Your task to perform on an android device: turn on showing notifications on the lock screen Image 0: 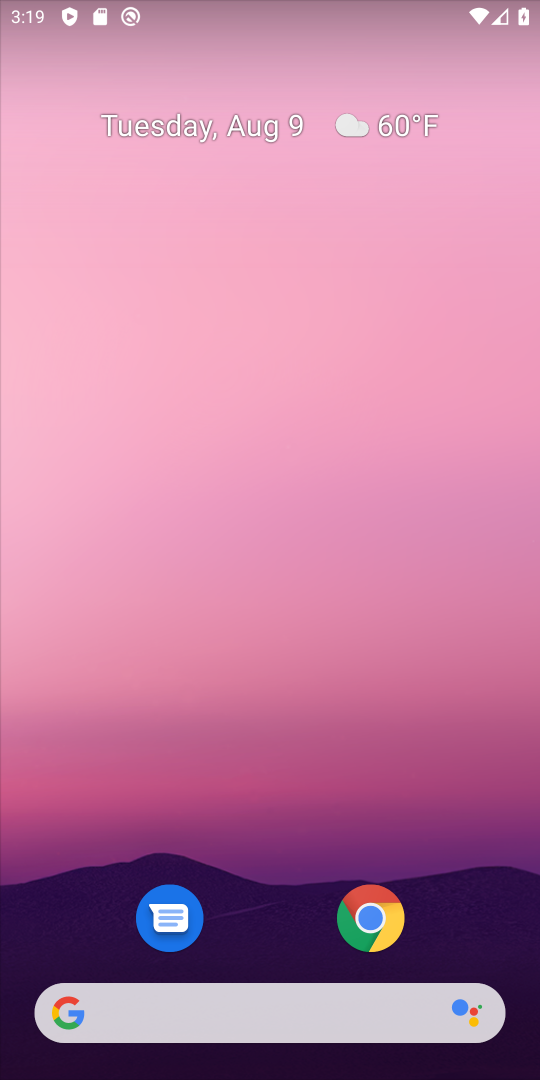
Step 0: drag from (281, 1009) to (242, 200)
Your task to perform on an android device: turn on showing notifications on the lock screen Image 1: 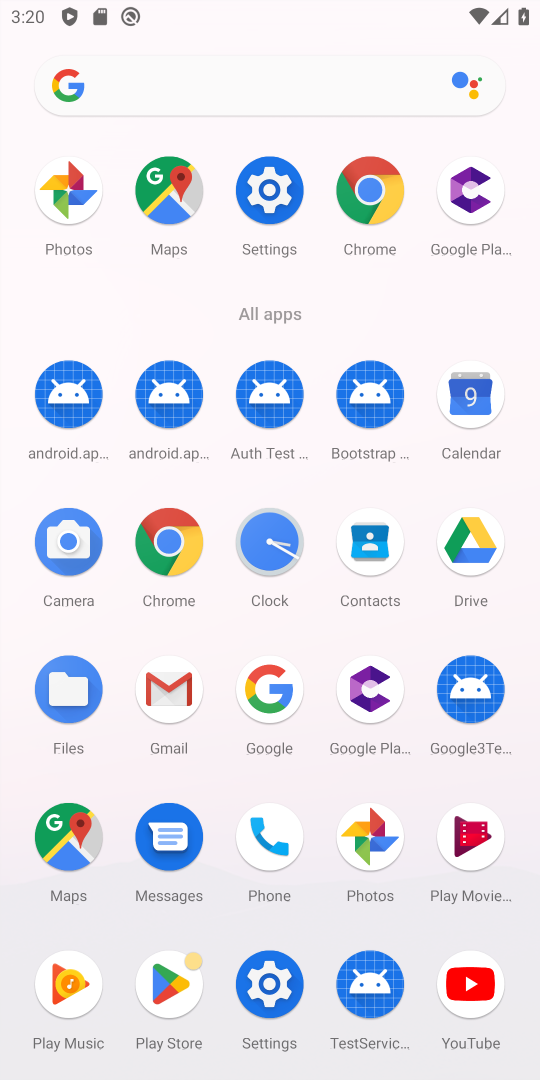
Step 1: click (297, 996)
Your task to perform on an android device: turn on showing notifications on the lock screen Image 2: 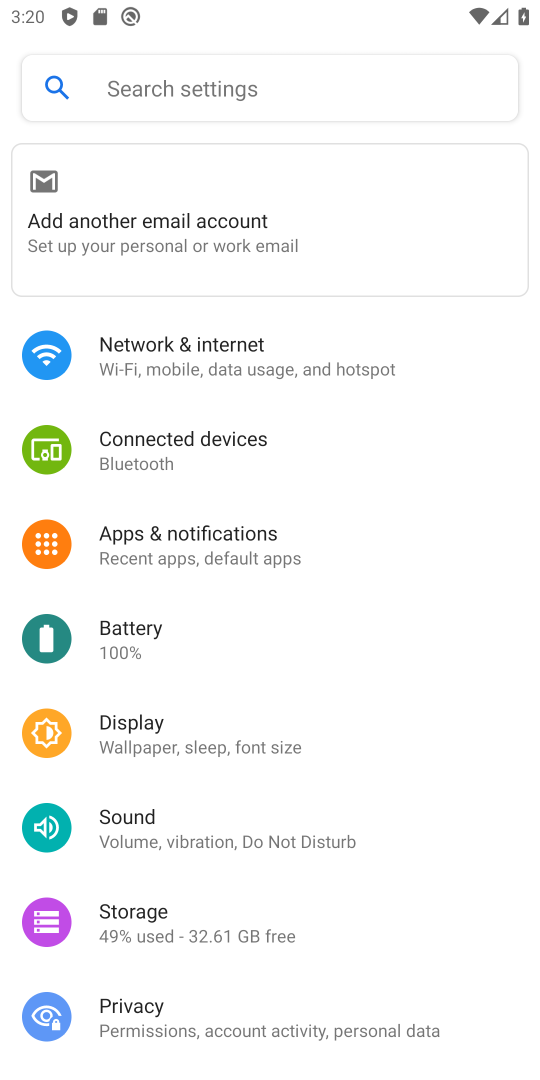
Step 2: click (217, 535)
Your task to perform on an android device: turn on showing notifications on the lock screen Image 3: 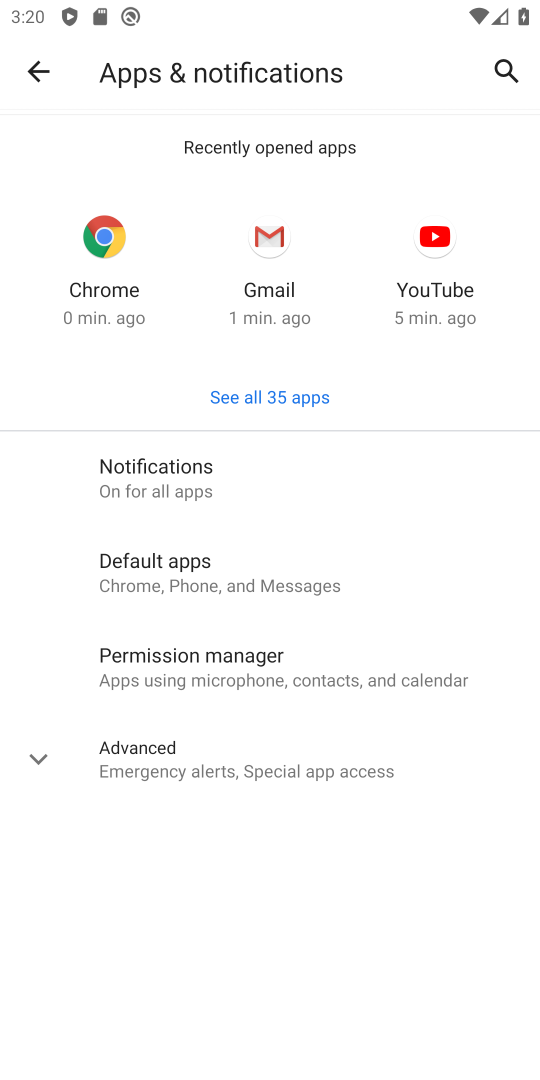
Step 3: click (252, 472)
Your task to perform on an android device: turn on showing notifications on the lock screen Image 4: 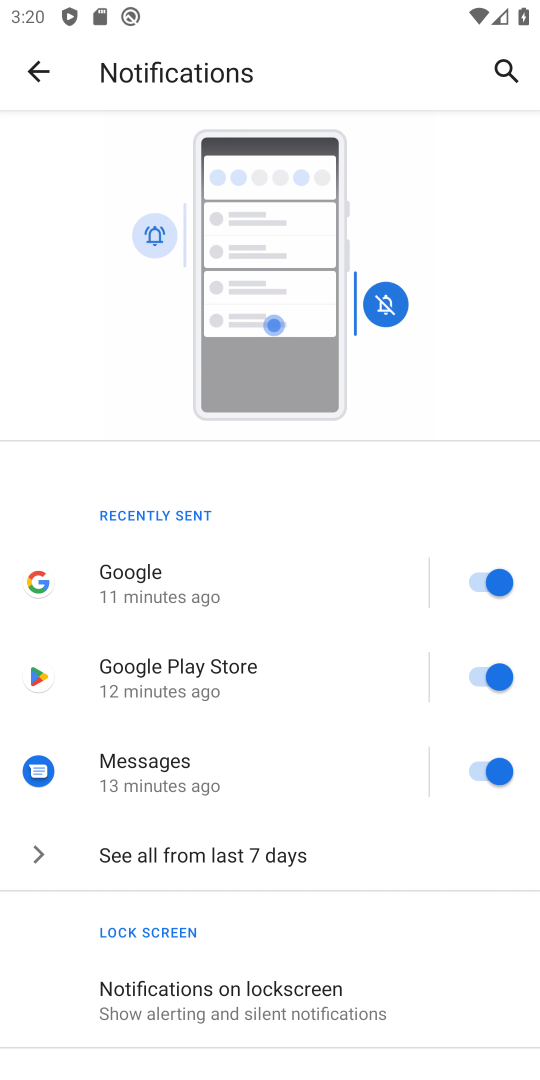
Step 4: click (327, 1020)
Your task to perform on an android device: turn on showing notifications on the lock screen Image 5: 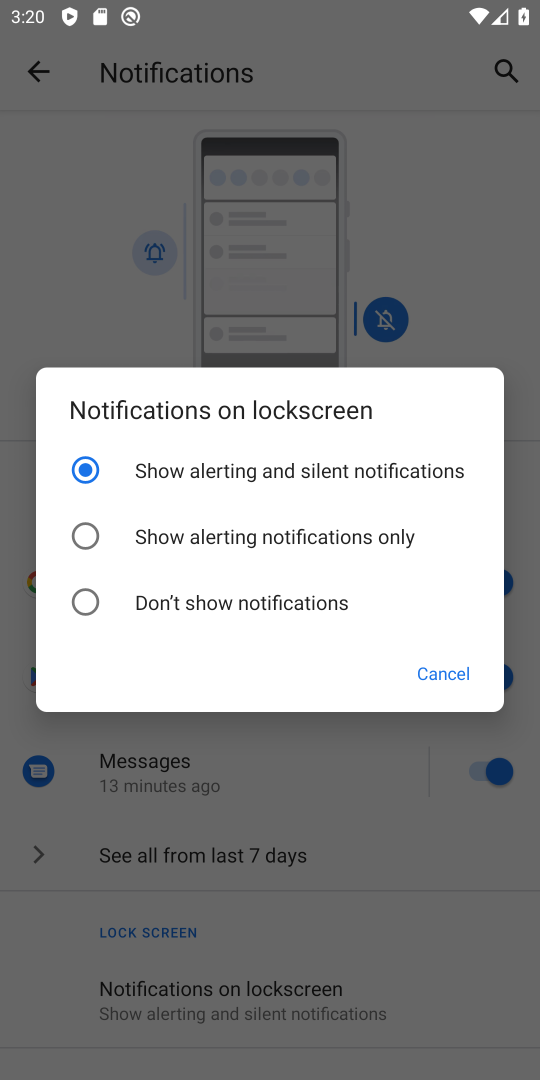
Step 5: click (226, 471)
Your task to perform on an android device: turn on showing notifications on the lock screen Image 6: 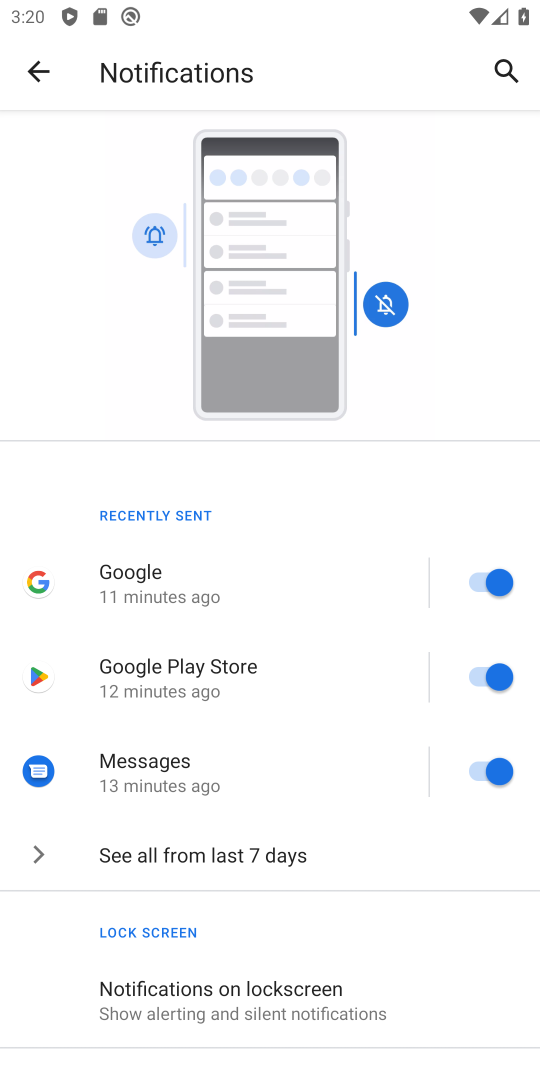
Step 6: task complete